Your task to perform on an android device: Check the weather Image 0: 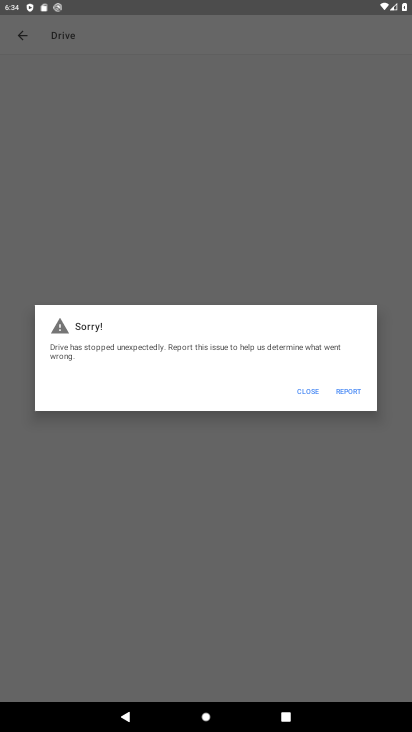
Step 0: press home button
Your task to perform on an android device: Check the weather Image 1: 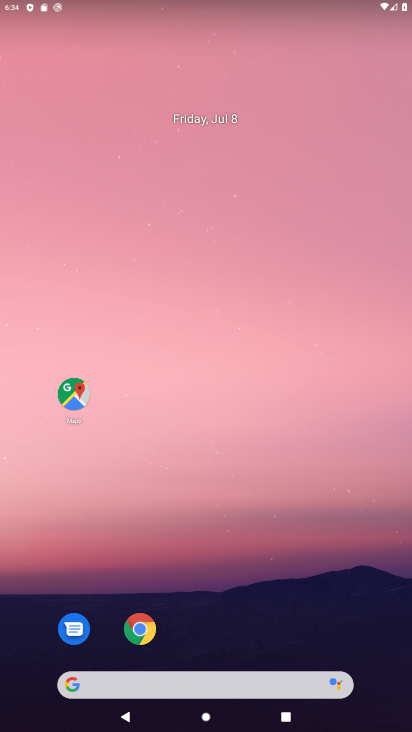
Step 1: drag from (340, 600) to (327, 7)
Your task to perform on an android device: Check the weather Image 2: 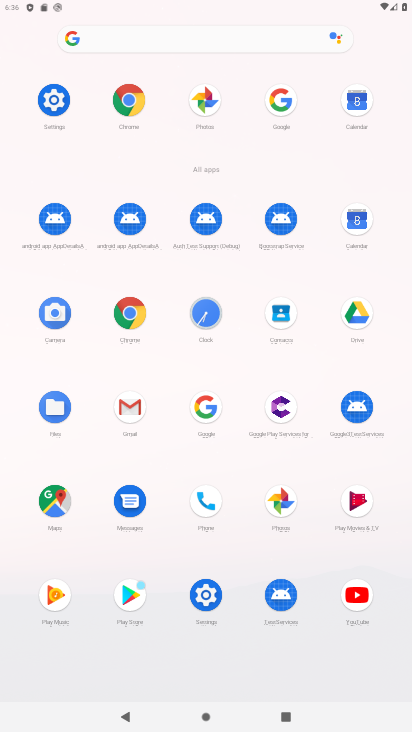
Step 2: click (140, 113)
Your task to perform on an android device: Check the weather Image 3: 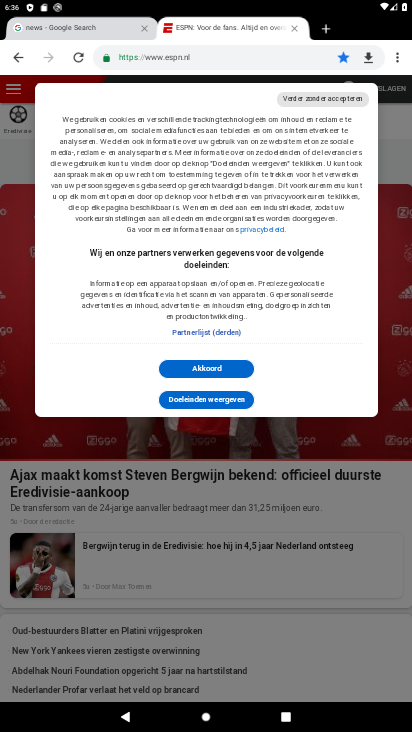
Step 3: click (223, 59)
Your task to perform on an android device: Check the weather Image 4: 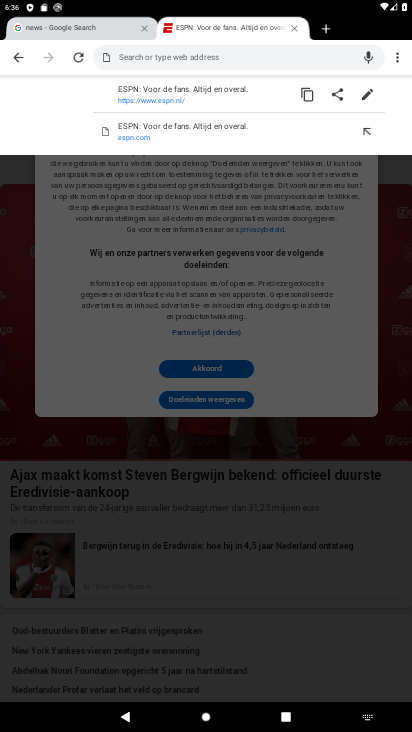
Step 4: click (260, 50)
Your task to perform on an android device: Check the weather Image 5: 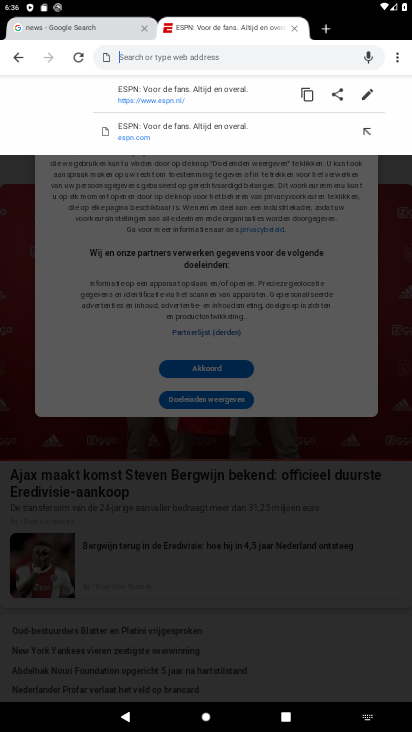
Step 5: type "weather"
Your task to perform on an android device: Check the weather Image 6: 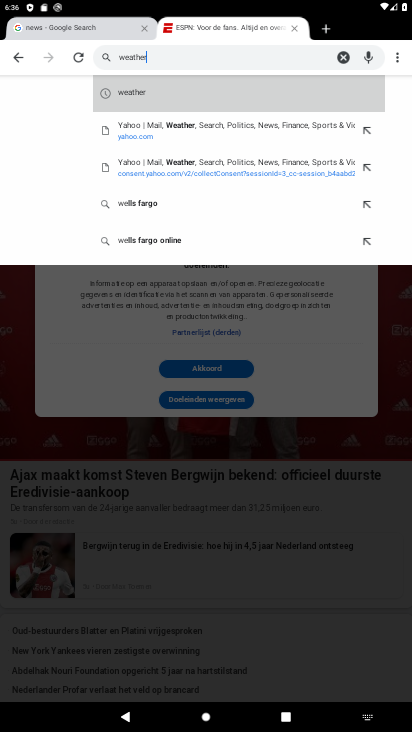
Step 6: type ""
Your task to perform on an android device: Check the weather Image 7: 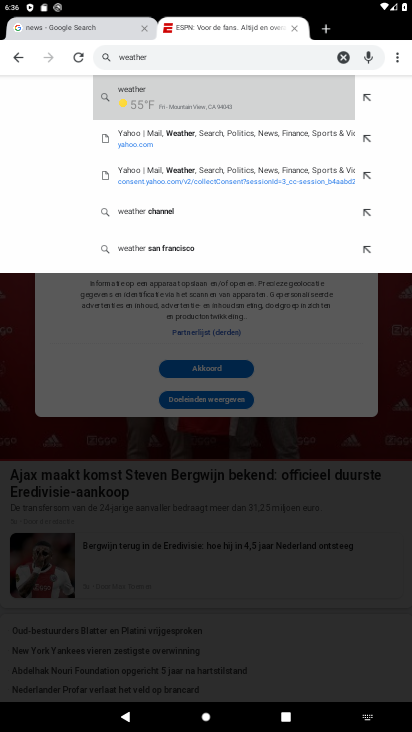
Step 7: click (180, 107)
Your task to perform on an android device: Check the weather Image 8: 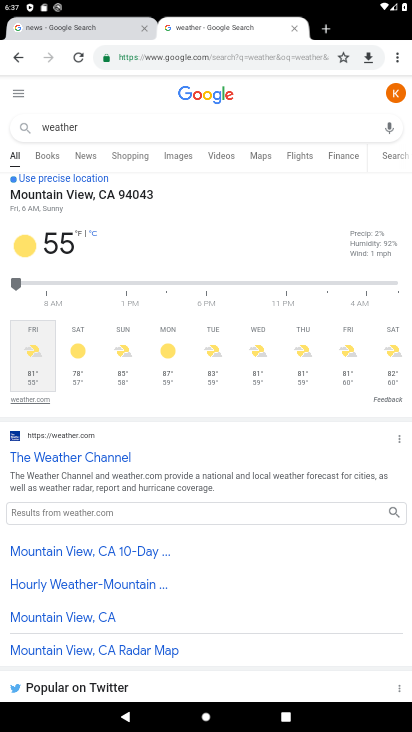
Step 8: task complete